Your task to perform on an android device: open app "Mercado Libre" (install if not already installed) Image 0: 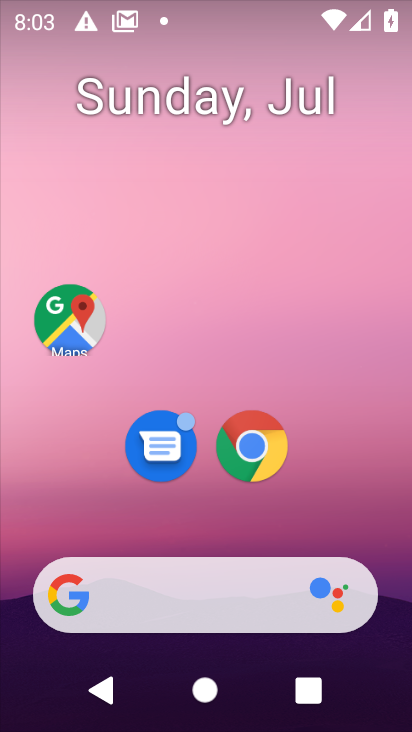
Step 0: drag from (194, 480) to (185, 157)
Your task to perform on an android device: open app "Mercado Libre" (install if not already installed) Image 1: 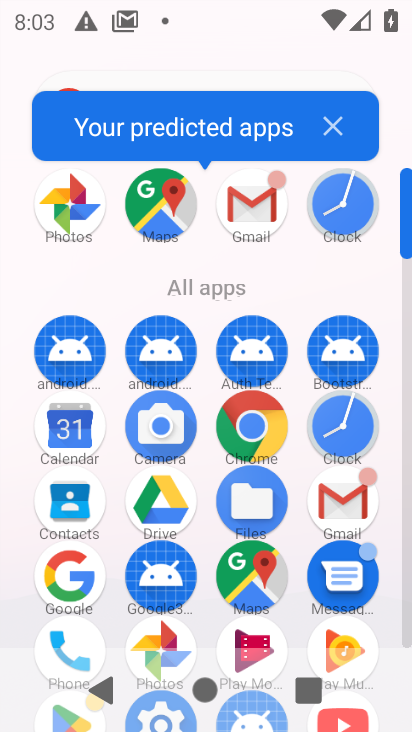
Step 1: drag from (287, 600) to (322, 156)
Your task to perform on an android device: open app "Mercado Libre" (install if not already installed) Image 2: 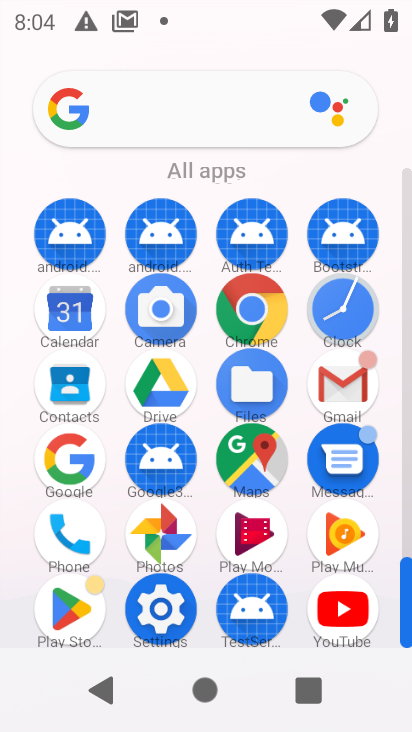
Step 2: click (53, 612)
Your task to perform on an android device: open app "Mercado Libre" (install if not already installed) Image 3: 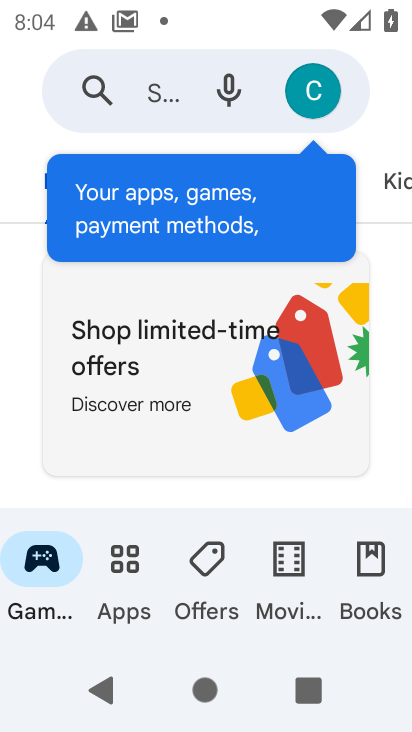
Step 3: click (170, 70)
Your task to perform on an android device: open app "Mercado Libre" (install if not already installed) Image 4: 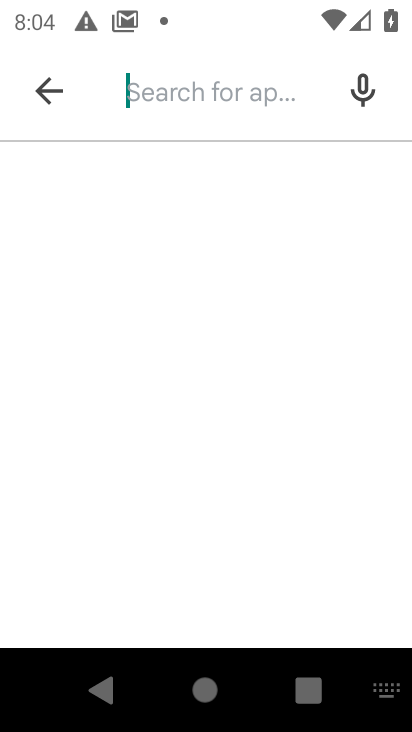
Step 4: type "Mercado Libre"
Your task to perform on an android device: open app "Mercado Libre" (install if not already installed) Image 5: 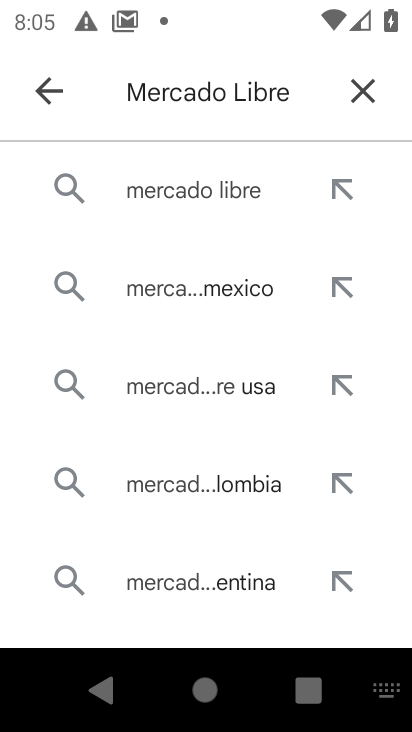
Step 5: click (238, 187)
Your task to perform on an android device: open app "Mercado Libre" (install if not already installed) Image 6: 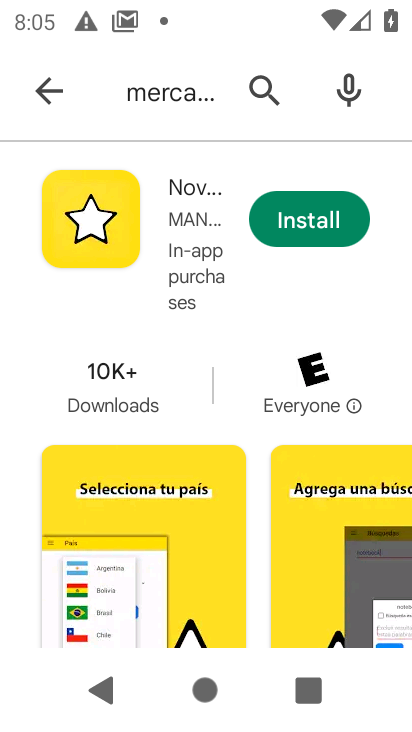
Step 6: click (298, 229)
Your task to perform on an android device: open app "Mercado Libre" (install if not already installed) Image 7: 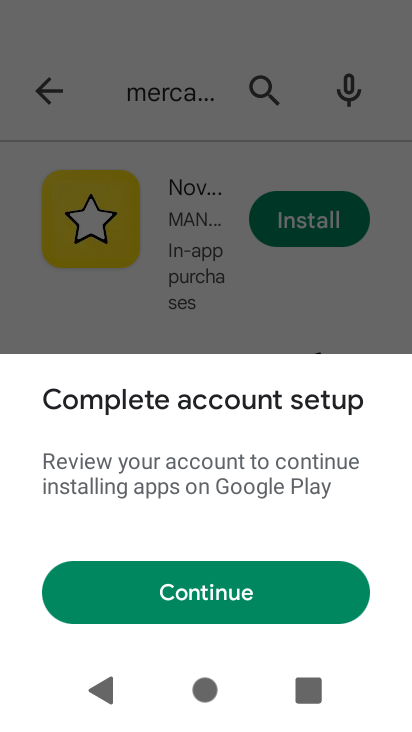
Step 7: task complete